Your task to perform on an android device: Search for a new bike on Walmart. Image 0: 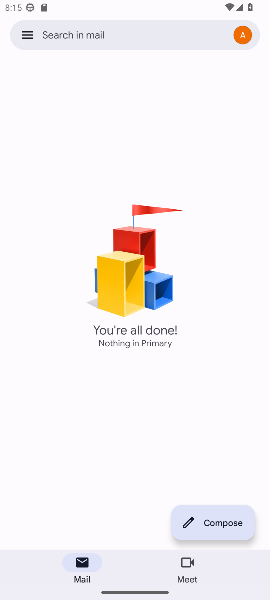
Step 0: press home button
Your task to perform on an android device: Search for a new bike on Walmart. Image 1: 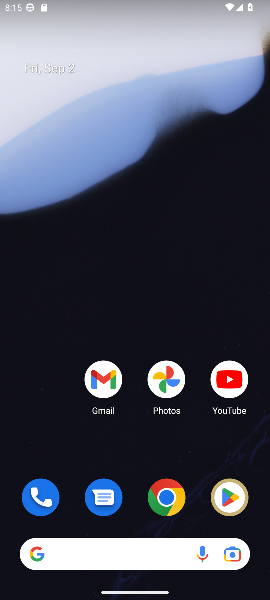
Step 1: drag from (138, 526) to (140, 182)
Your task to perform on an android device: Search for a new bike on Walmart. Image 2: 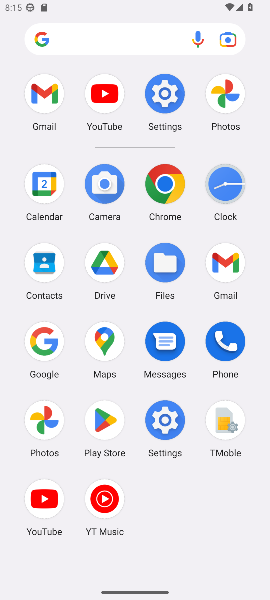
Step 2: click (46, 357)
Your task to perform on an android device: Search for a new bike on Walmart. Image 3: 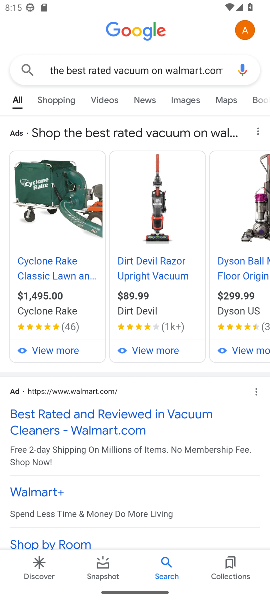
Step 3: click (167, 75)
Your task to perform on an android device: Search for a new bike on Walmart. Image 4: 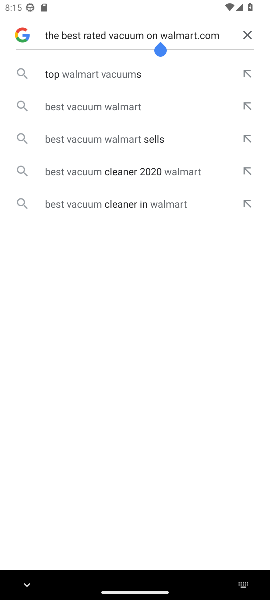
Step 4: click (241, 37)
Your task to perform on an android device: Search for a new bike on Walmart. Image 5: 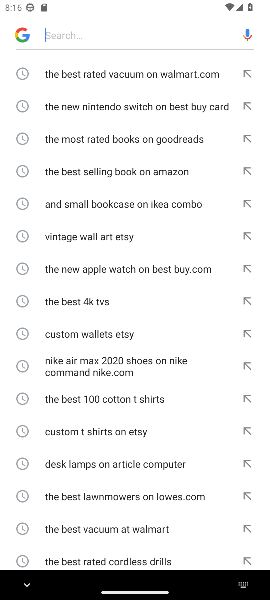
Step 5: type "a new bike on Walmart."
Your task to perform on an android device: Search for a new bike on Walmart. Image 6: 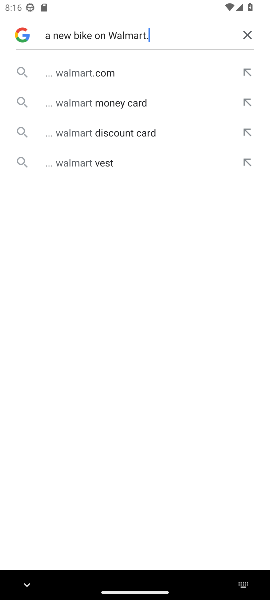
Step 6: click (107, 69)
Your task to perform on an android device: Search for a new bike on Walmart. Image 7: 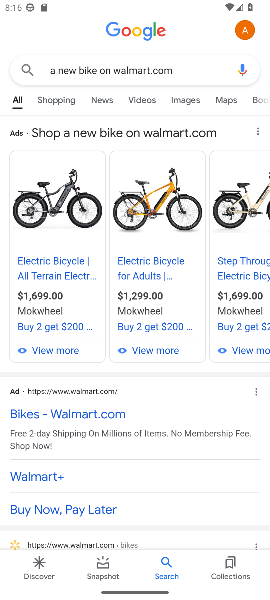
Step 7: click (69, 416)
Your task to perform on an android device: Search for a new bike on Walmart. Image 8: 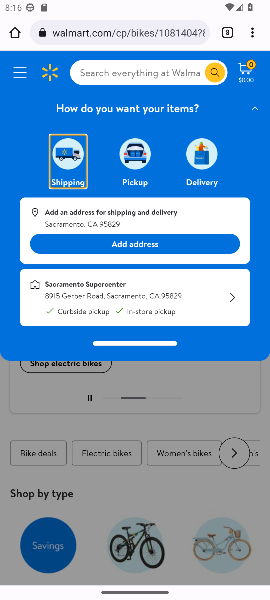
Step 8: click (69, 416)
Your task to perform on an android device: Search for a new bike on Walmart. Image 9: 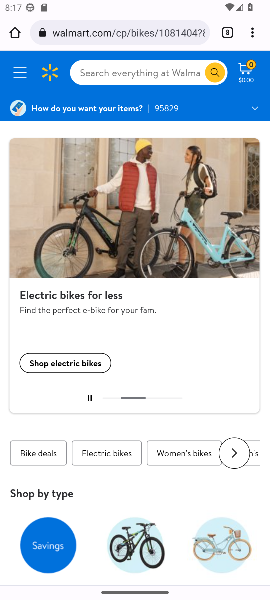
Step 9: click (144, 31)
Your task to perform on an android device: Search for a new bike on Walmart. Image 10: 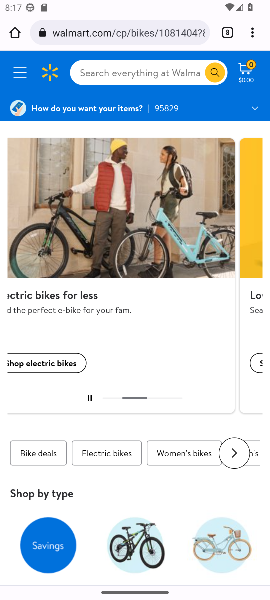
Step 10: click (144, 31)
Your task to perform on an android device: Search for a new bike on Walmart. Image 11: 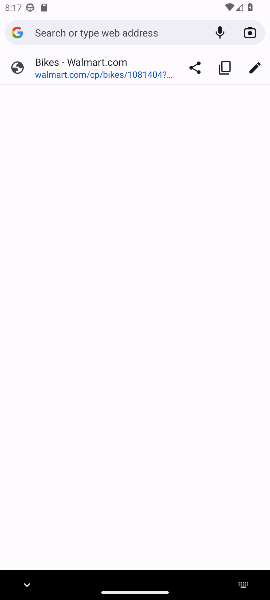
Step 11: click (89, 64)
Your task to perform on an android device: Search for a new bike on Walmart. Image 12: 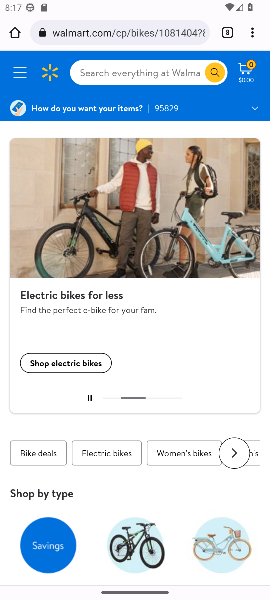
Step 12: task complete